Your task to perform on an android device: choose inbox layout in the gmail app Image 0: 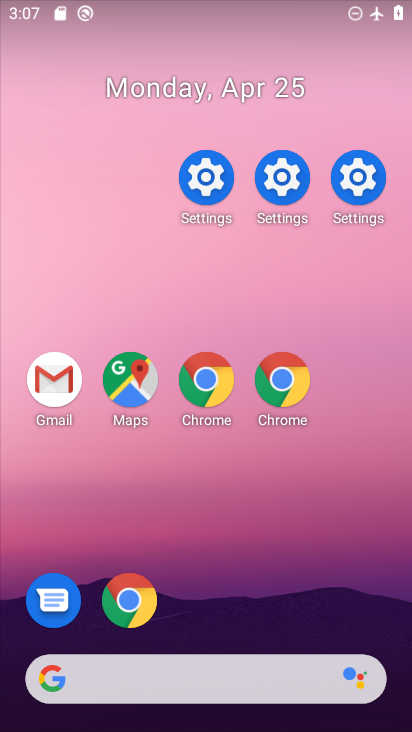
Step 0: drag from (255, 636) to (240, 0)
Your task to perform on an android device: choose inbox layout in the gmail app Image 1: 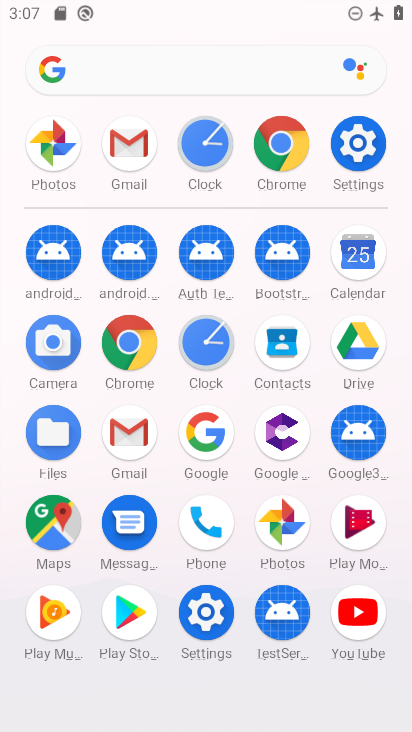
Step 1: click (122, 430)
Your task to perform on an android device: choose inbox layout in the gmail app Image 2: 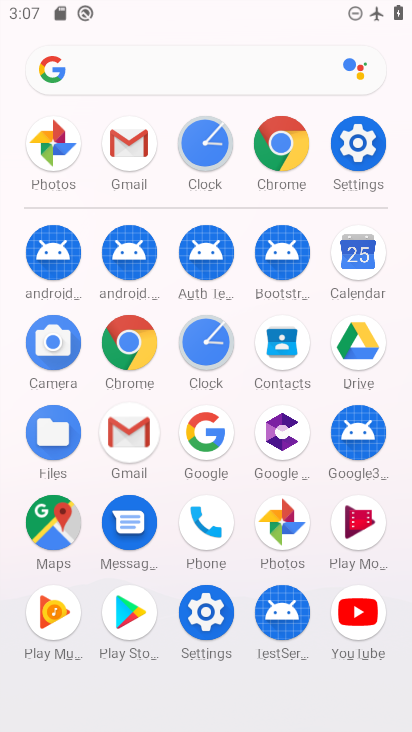
Step 2: click (122, 430)
Your task to perform on an android device: choose inbox layout in the gmail app Image 3: 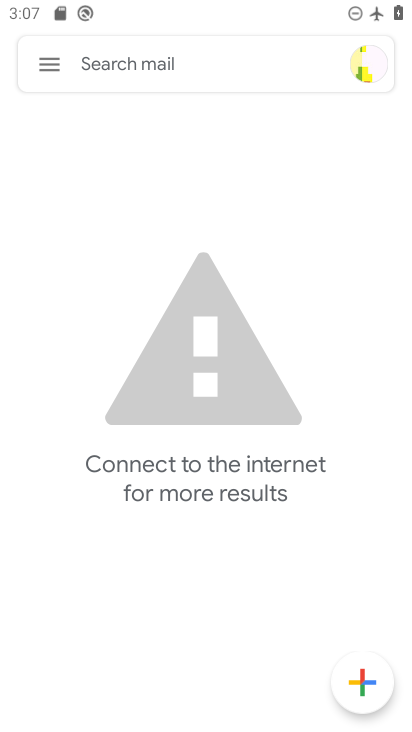
Step 3: click (53, 64)
Your task to perform on an android device: choose inbox layout in the gmail app Image 4: 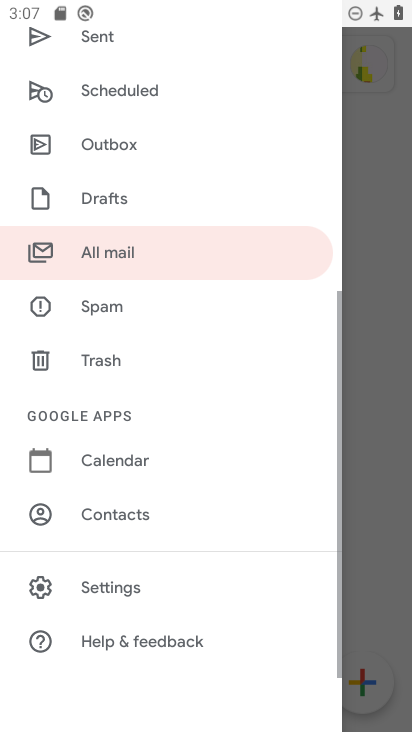
Step 4: click (53, 64)
Your task to perform on an android device: choose inbox layout in the gmail app Image 5: 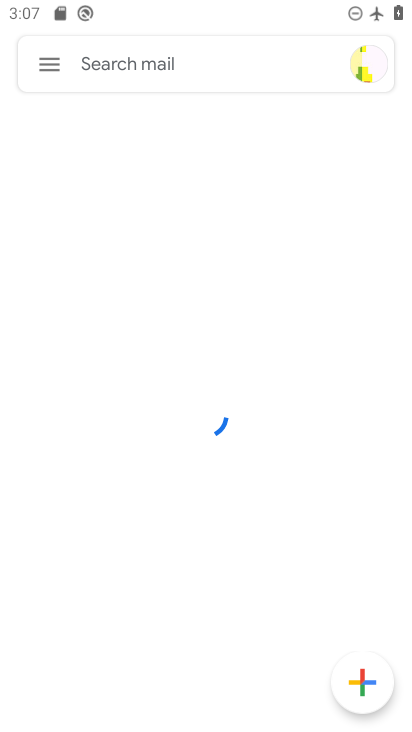
Step 5: click (46, 60)
Your task to perform on an android device: choose inbox layout in the gmail app Image 6: 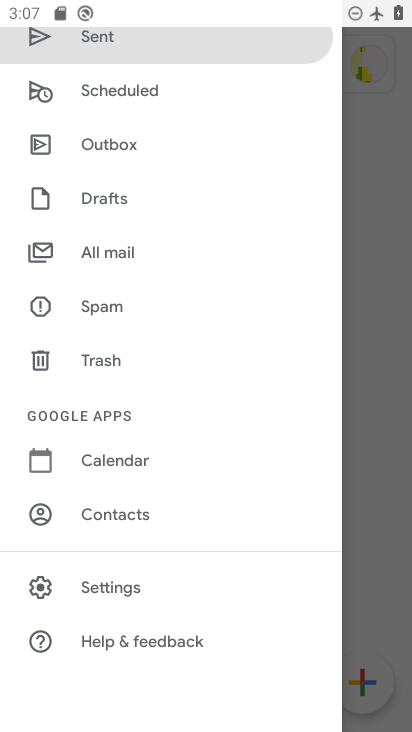
Step 6: click (108, 583)
Your task to perform on an android device: choose inbox layout in the gmail app Image 7: 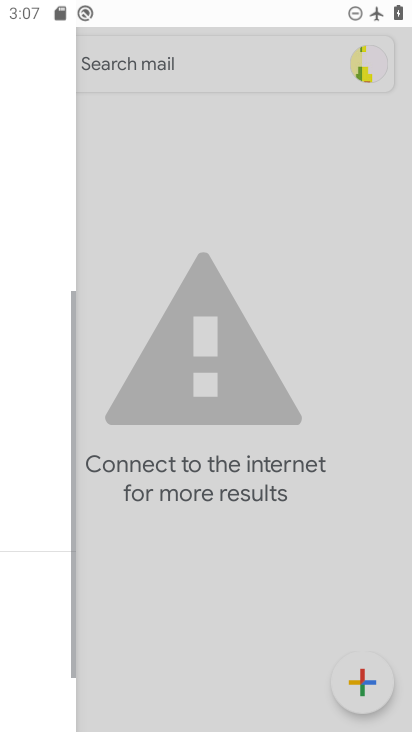
Step 7: click (108, 584)
Your task to perform on an android device: choose inbox layout in the gmail app Image 8: 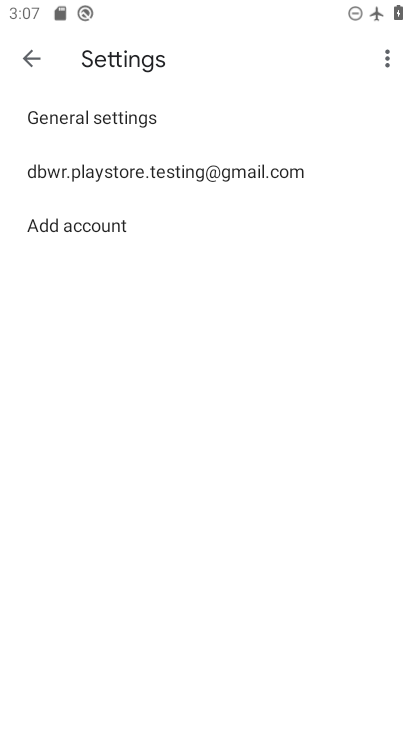
Step 8: click (32, 46)
Your task to perform on an android device: choose inbox layout in the gmail app Image 9: 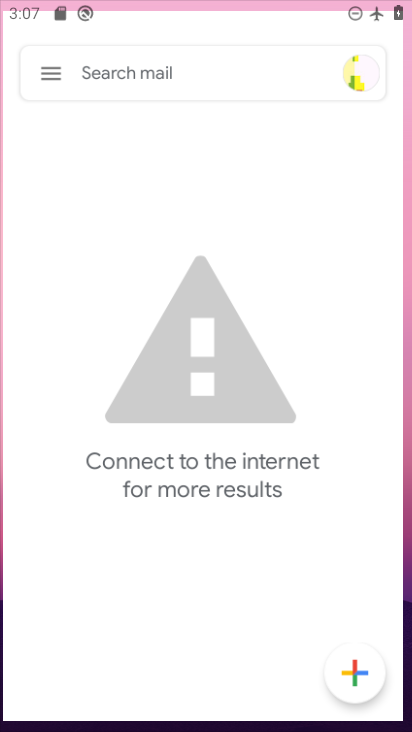
Step 9: click (30, 52)
Your task to perform on an android device: choose inbox layout in the gmail app Image 10: 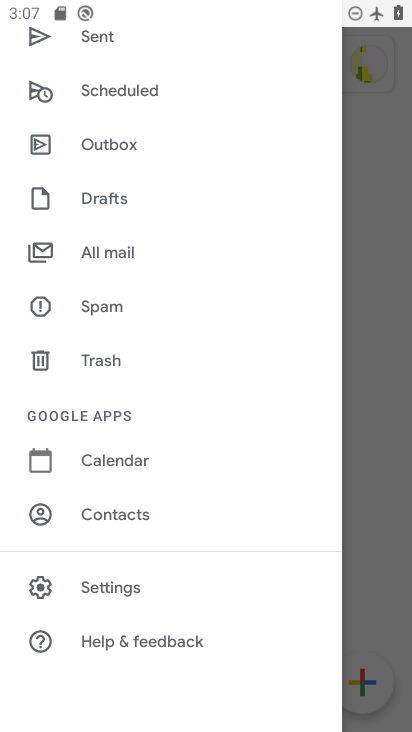
Step 10: drag from (136, 326) to (121, 656)
Your task to perform on an android device: choose inbox layout in the gmail app Image 11: 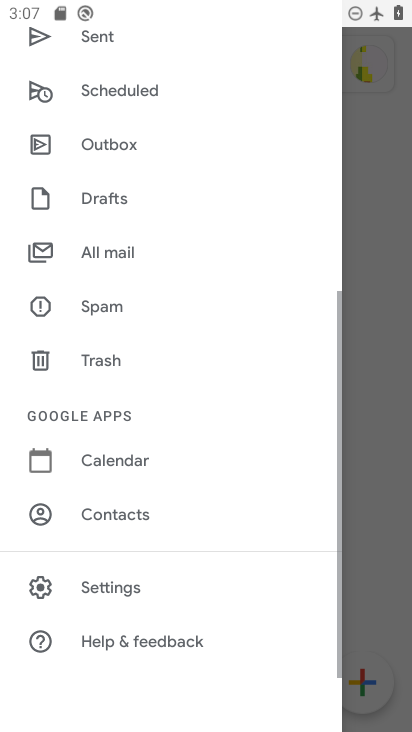
Step 11: click (225, 719)
Your task to perform on an android device: choose inbox layout in the gmail app Image 12: 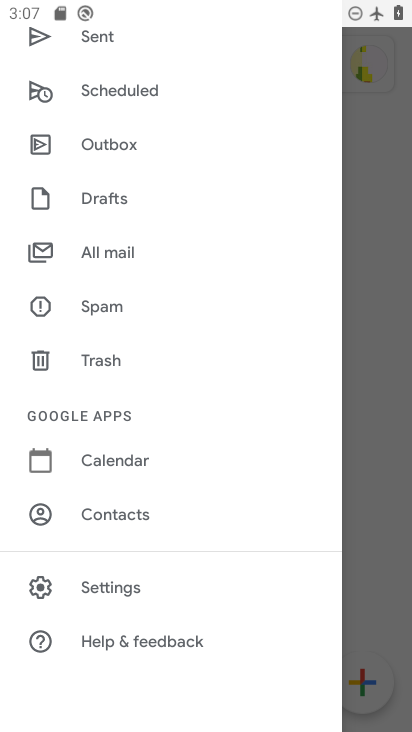
Step 12: click (121, 248)
Your task to perform on an android device: choose inbox layout in the gmail app Image 13: 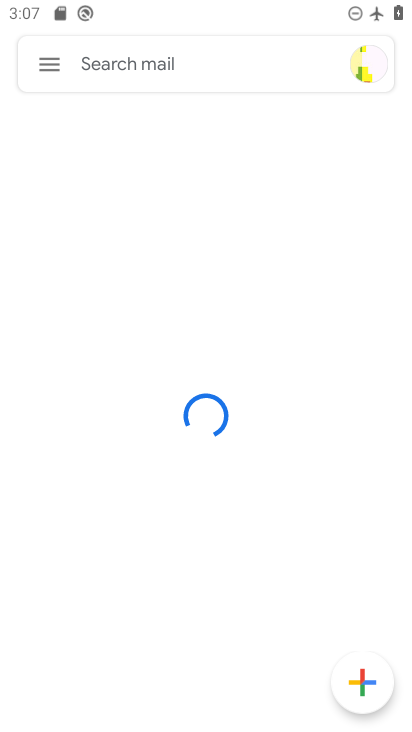
Step 13: click (52, 63)
Your task to perform on an android device: choose inbox layout in the gmail app Image 14: 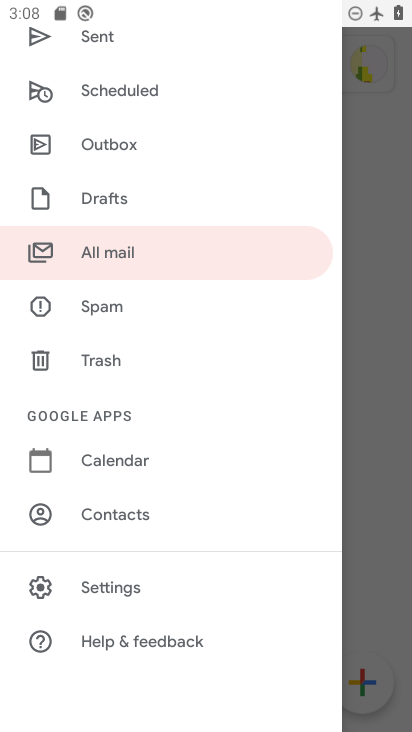
Step 14: click (182, 253)
Your task to perform on an android device: choose inbox layout in the gmail app Image 15: 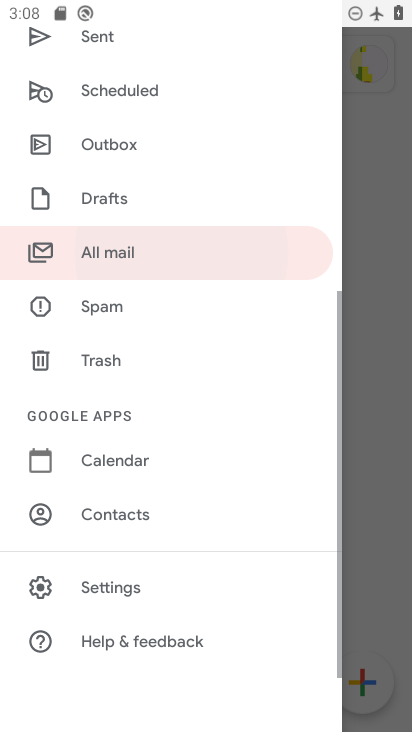
Step 15: click (182, 253)
Your task to perform on an android device: choose inbox layout in the gmail app Image 16: 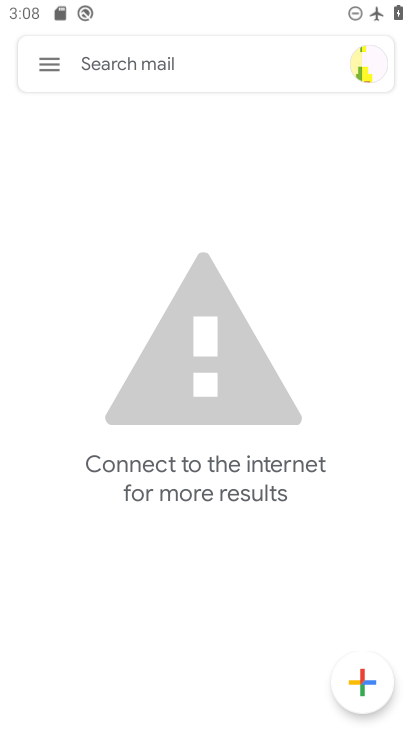
Step 16: click (179, 248)
Your task to perform on an android device: choose inbox layout in the gmail app Image 17: 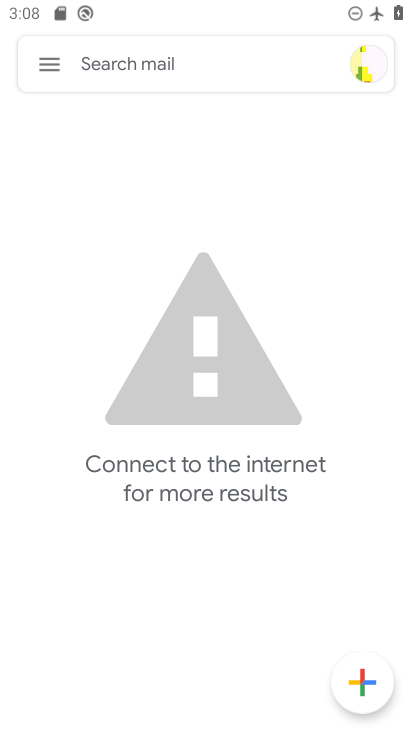
Step 17: click (54, 65)
Your task to perform on an android device: choose inbox layout in the gmail app Image 18: 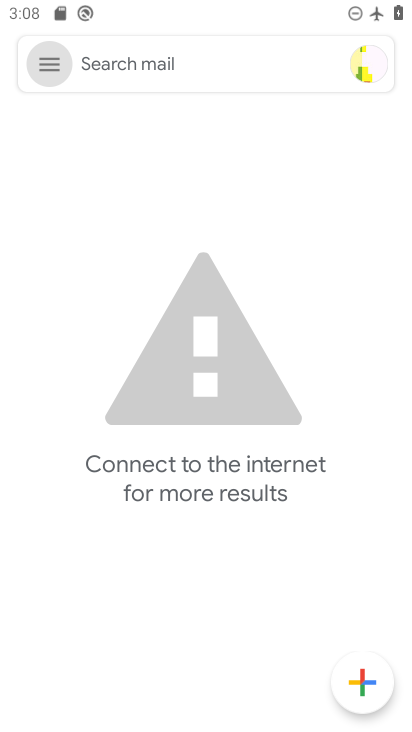
Step 18: click (54, 65)
Your task to perform on an android device: choose inbox layout in the gmail app Image 19: 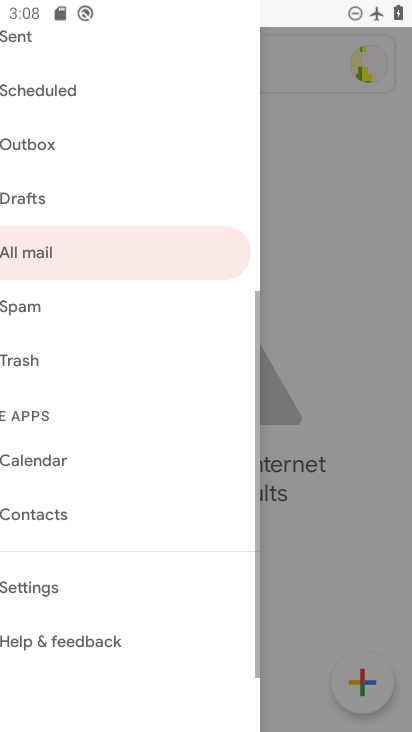
Step 19: click (54, 65)
Your task to perform on an android device: choose inbox layout in the gmail app Image 20: 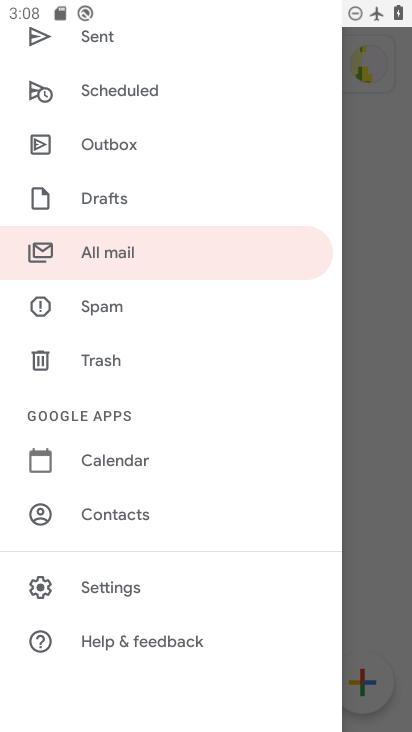
Step 20: click (138, 256)
Your task to perform on an android device: choose inbox layout in the gmail app Image 21: 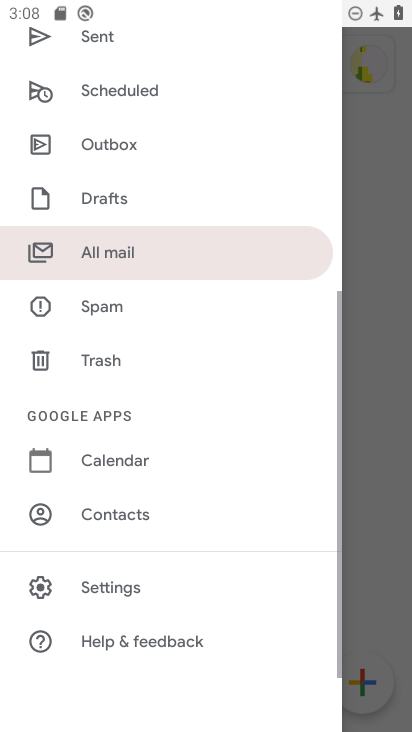
Step 21: click (138, 256)
Your task to perform on an android device: choose inbox layout in the gmail app Image 22: 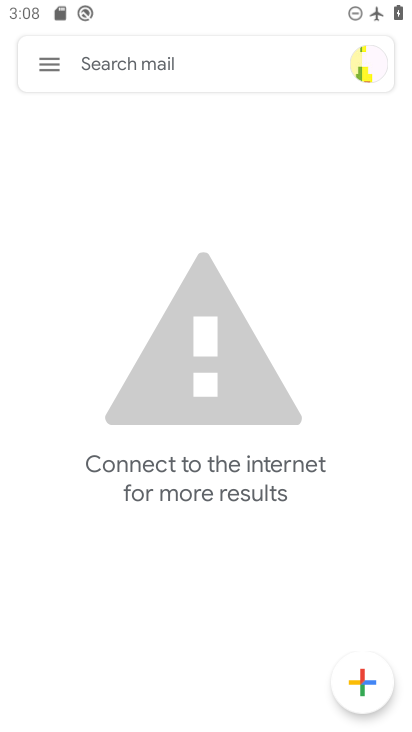
Step 22: click (45, 66)
Your task to perform on an android device: choose inbox layout in the gmail app Image 23: 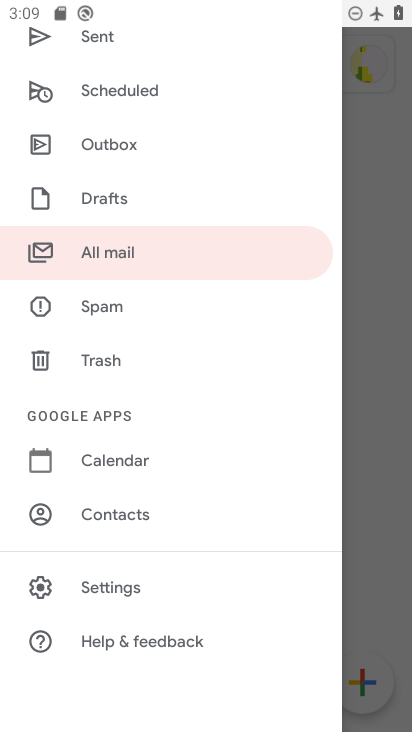
Step 23: click (106, 262)
Your task to perform on an android device: choose inbox layout in the gmail app Image 24: 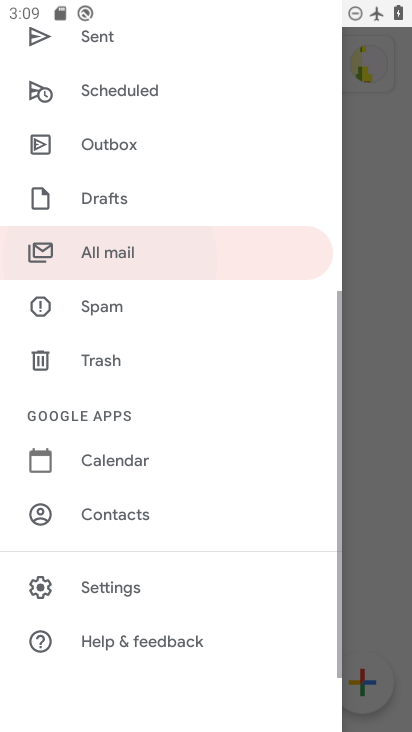
Step 24: click (106, 261)
Your task to perform on an android device: choose inbox layout in the gmail app Image 25: 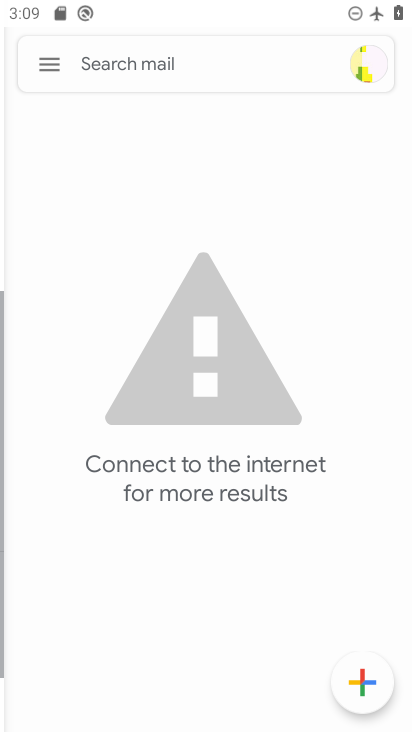
Step 25: click (106, 261)
Your task to perform on an android device: choose inbox layout in the gmail app Image 26: 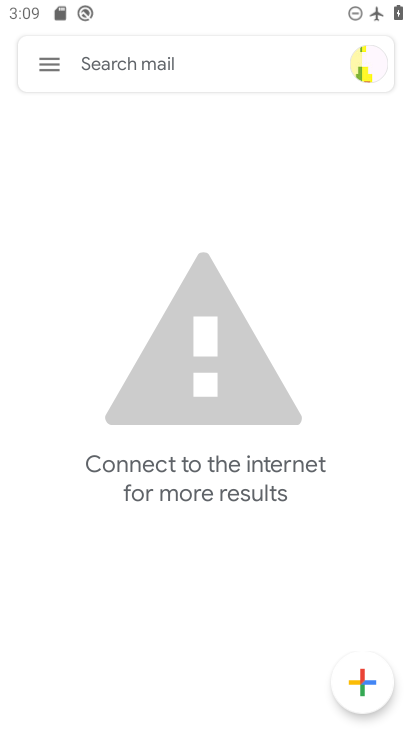
Step 26: task complete